Your task to perform on an android device: see tabs open on other devices in the chrome app Image 0: 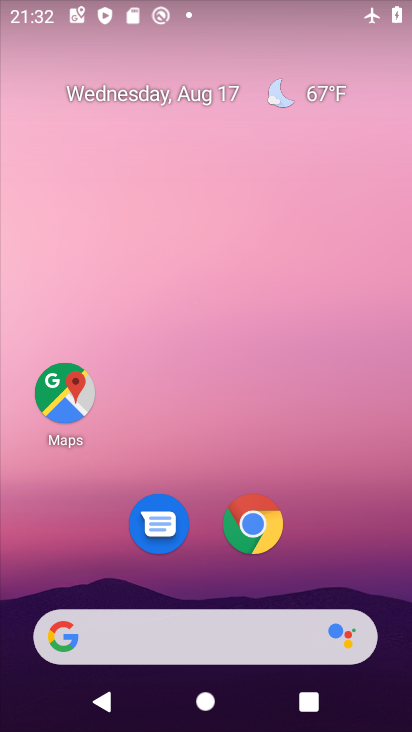
Step 0: click (251, 521)
Your task to perform on an android device: see tabs open on other devices in the chrome app Image 1: 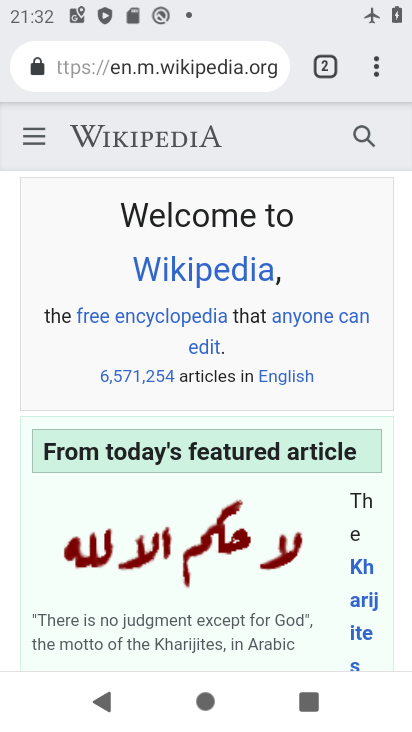
Step 1: click (371, 69)
Your task to perform on an android device: see tabs open on other devices in the chrome app Image 2: 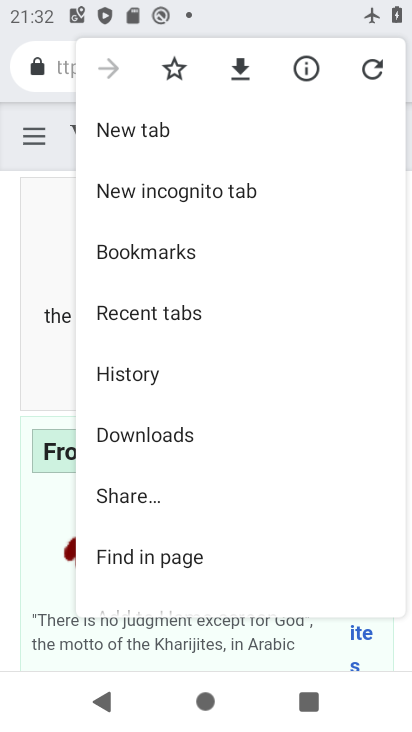
Step 2: click (187, 307)
Your task to perform on an android device: see tabs open on other devices in the chrome app Image 3: 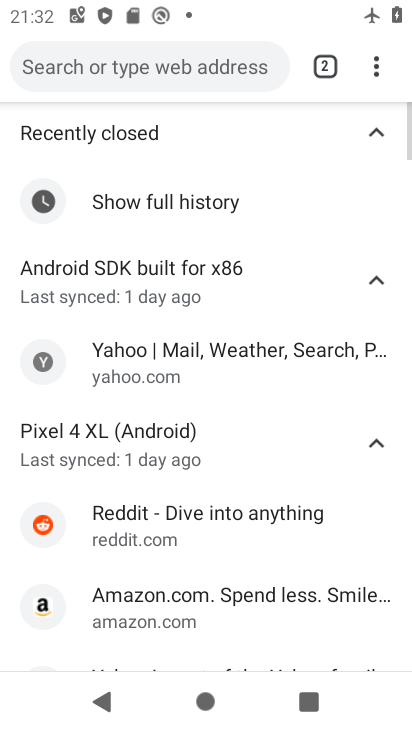
Step 3: task complete